Your task to perform on an android device: turn vacation reply on in the gmail app Image 0: 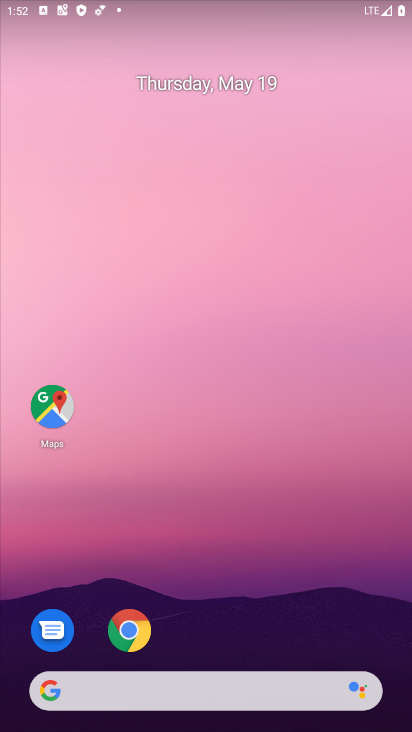
Step 0: drag from (395, 642) to (343, 93)
Your task to perform on an android device: turn vacation reply on in the gmail app Image 1: 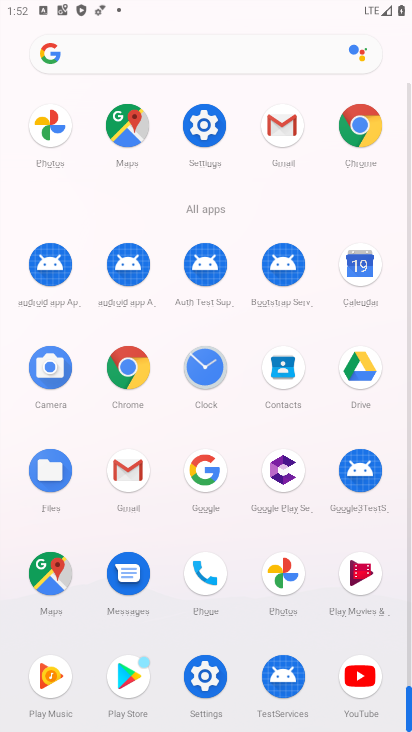
Step 1: click (126, 472)
Your task to perform on an android device: turn vacation reply on in the gmail app Image 2: 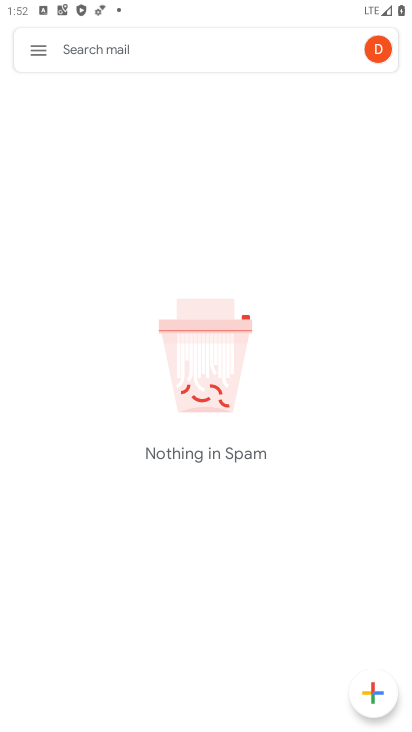
Step 2: click (40, 47)
Your task to perform on an android device: turn vacation reply on in the gmail app Image 3: 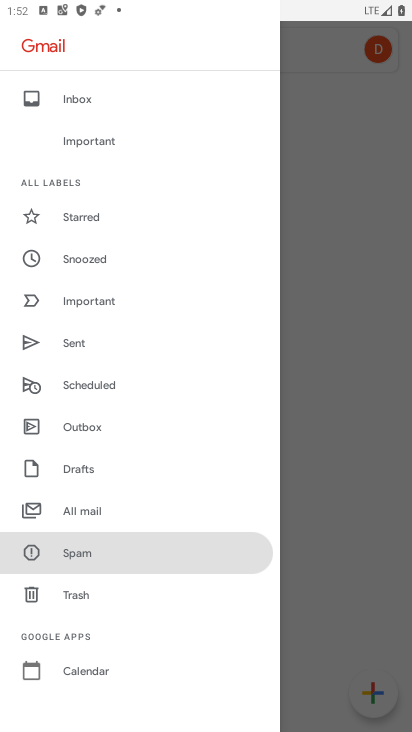
Step 3: drag from (194, 672) to (230, 229)
Your task to perform on an android device: turn vacation reply on in the gmail app Image 4: 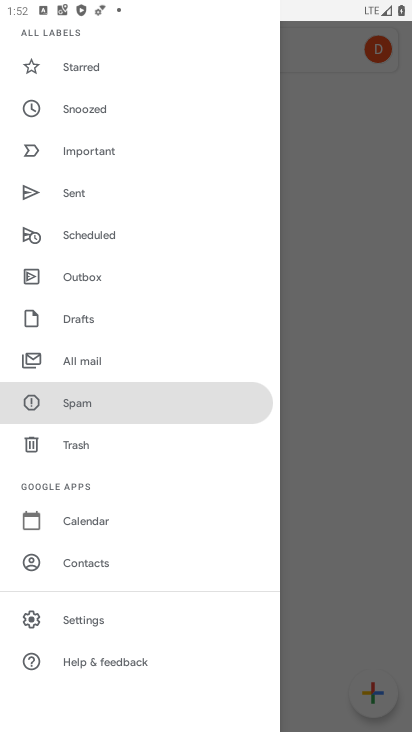
Step 4: click (74, 615)
Your task to perform on an android device: turn vacation reply on in the gmail app Image 5: 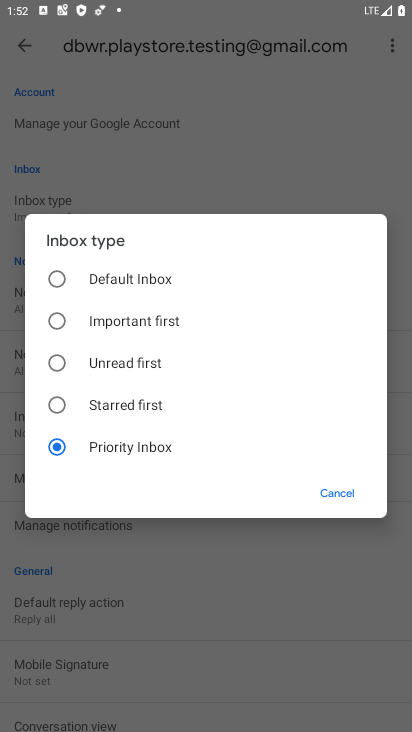
Step 5: click (331, 480)
Your task to perform on an android device: turn vacation reply on in the gmail app Image 6: 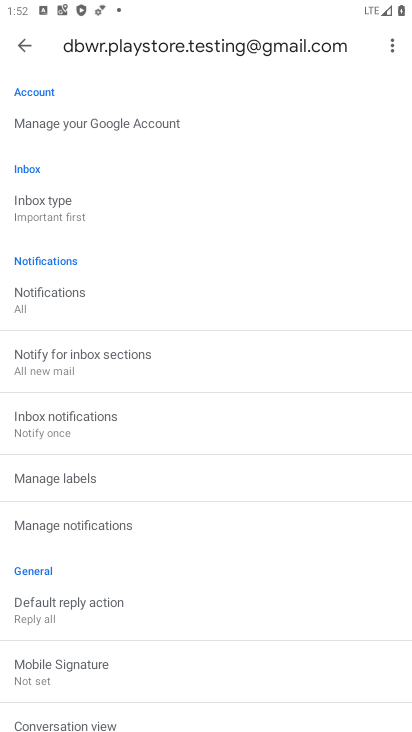
Step 6: drag from (232, 614) to (277, 175)
Your task to perform on an android device: turn vacation reply on in the gmail app Image 7: 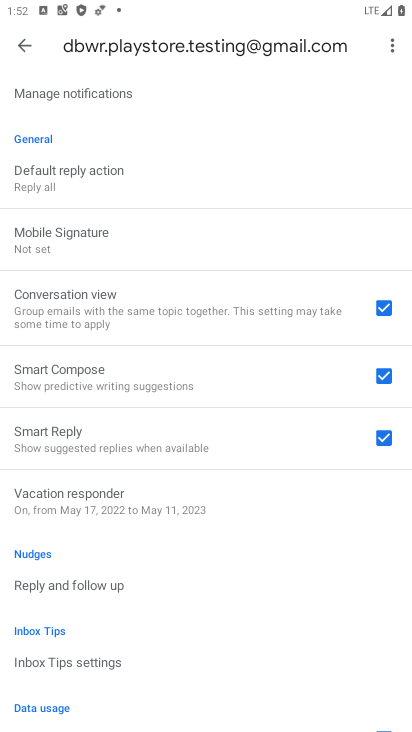
Step 7: click (175, 491)
Your task to perform on an android device: turn vacation reply on in the gmail app Image 8: 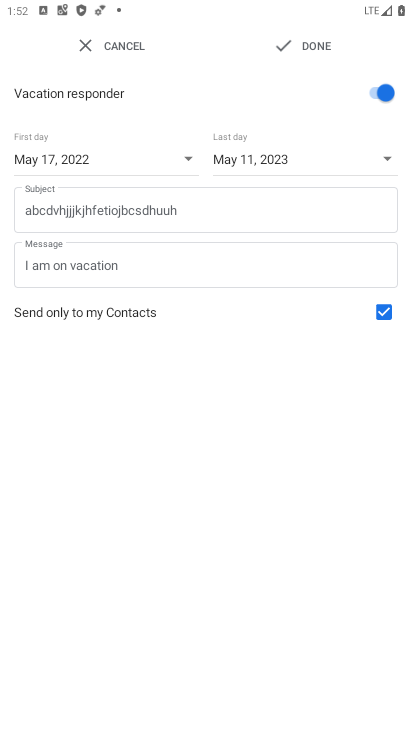
Step 8: task complete